Your task to perform on an android device: Go to CNN.com Image 0: 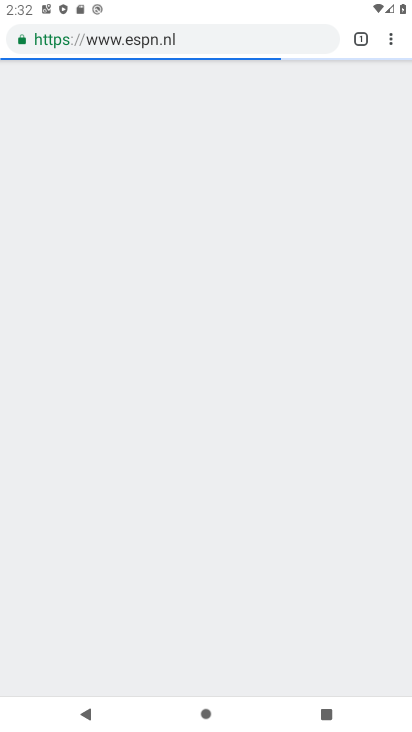
Step 0: press home button
Your task to perform on an android device: Go to CNN.com Image 1: 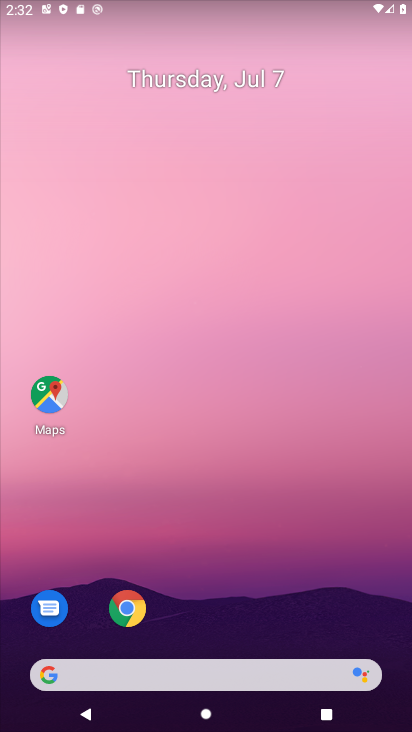
Step 1: drag from (392, 640) to (345, 103)
Your task to perform on an android device: Go to CNN.com Image 2: 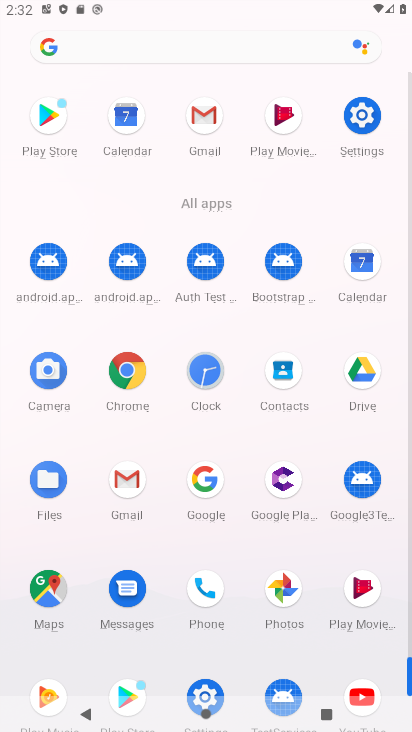
Step 2: click (129, 372)
Your task to perform on an android device: Go to CNN.com Image 3: 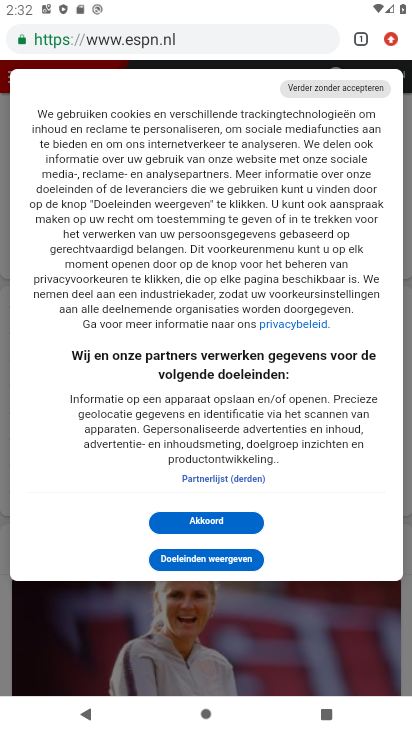
Step 3: click (205, 39)
Your task to perform on an android device: Go to CNN.com Image 4: 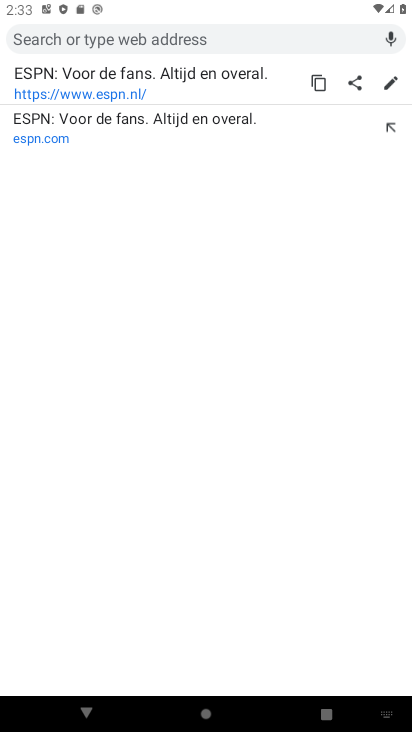
Step 4: type "CNN.com"
Your task to perform on an android device: Go to CNN.com Image 5: 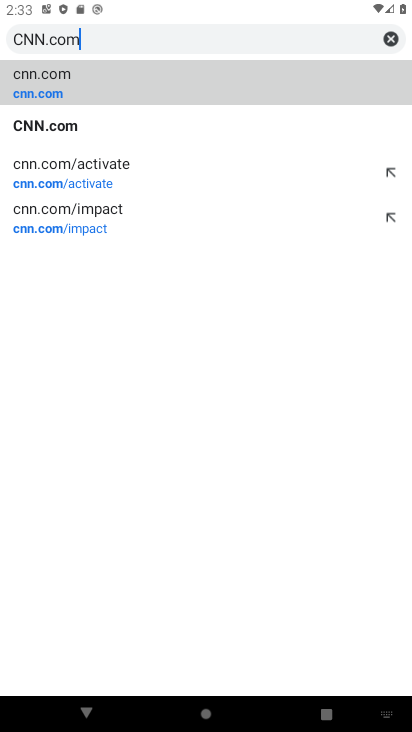
Step 5: click (48, 76)
Your task to perform on an android device: Go to CNN.com Image 6: 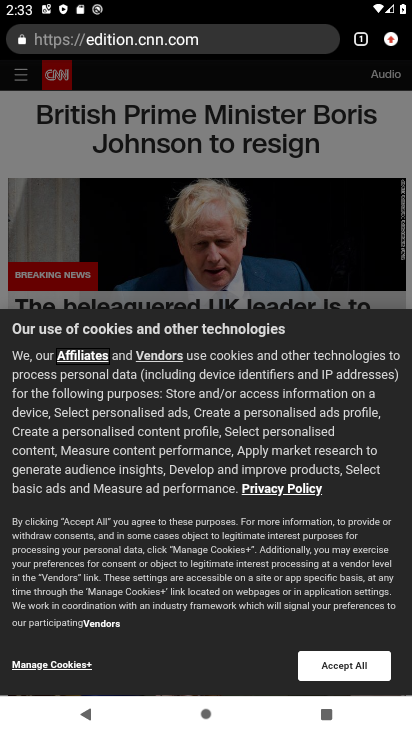
Step 6: click (335, 664)
Your task to perform on an android device: Go to CNN.com Image 7: 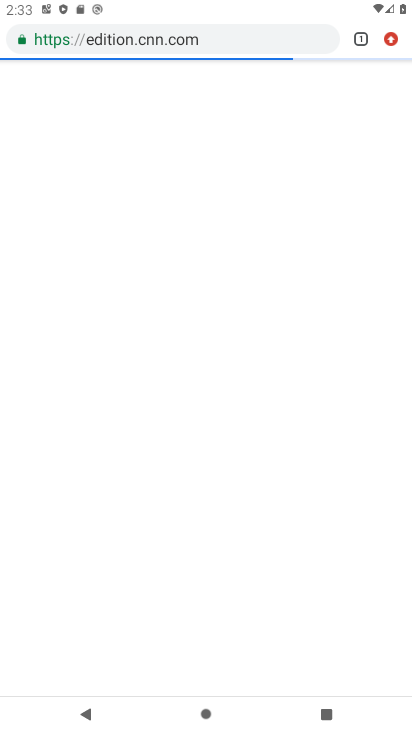
Step 7: task complete